Your task to perform on an android device: Open privacy settings Image 0: 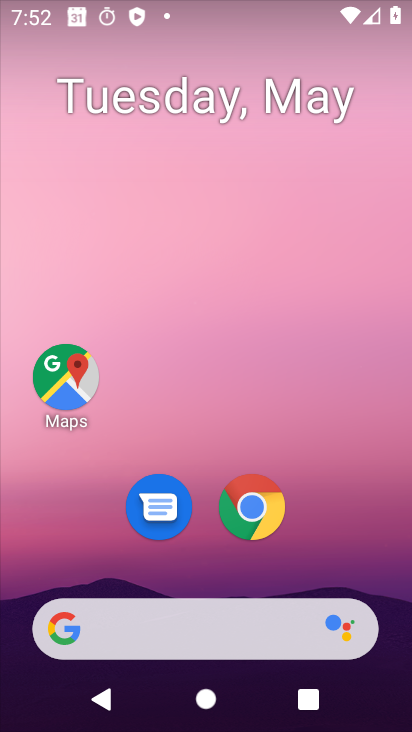
Step 0: drag from (303, 569) to (272, 23)
Your task to perform on an android device: Open privacy settings Image 1: 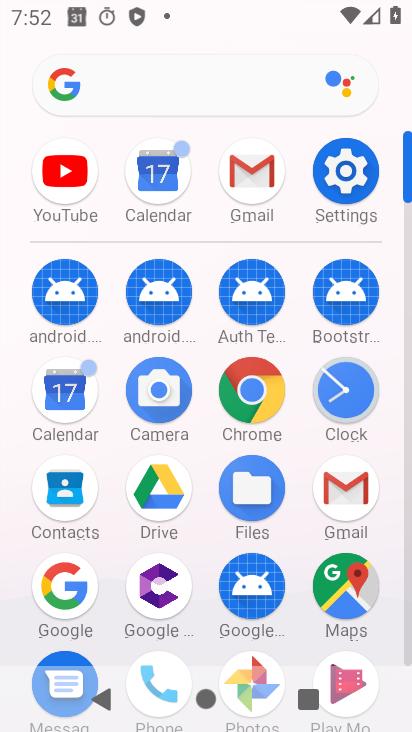
Step 1: click (347, 170)
Your task to perform on an android device: Open privacy settings Image 2: 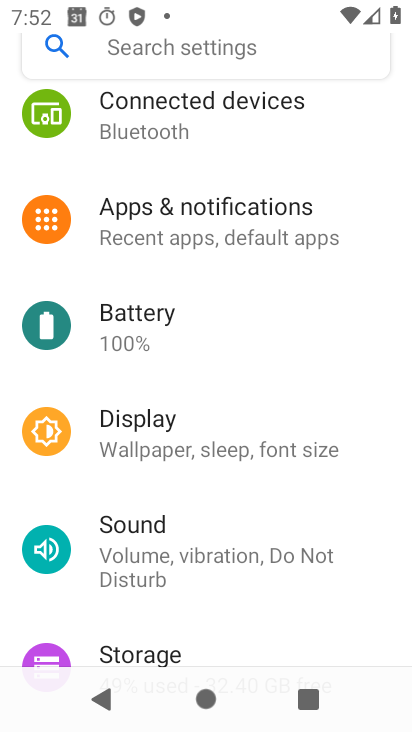
Step 2: drag from (231, 253) to (268, 409)
Your task to perform on an android device: Open privacy settings Image 3: 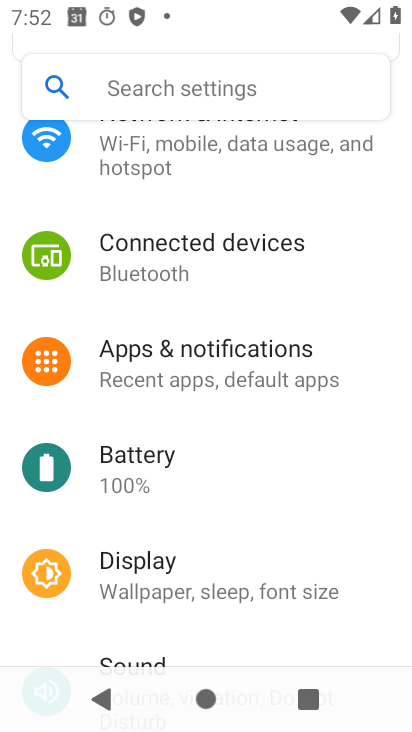
Step 3: drag from (249, 272) to (318, 451)
Your task to perform on an android device: Open privacy settings Image 4: 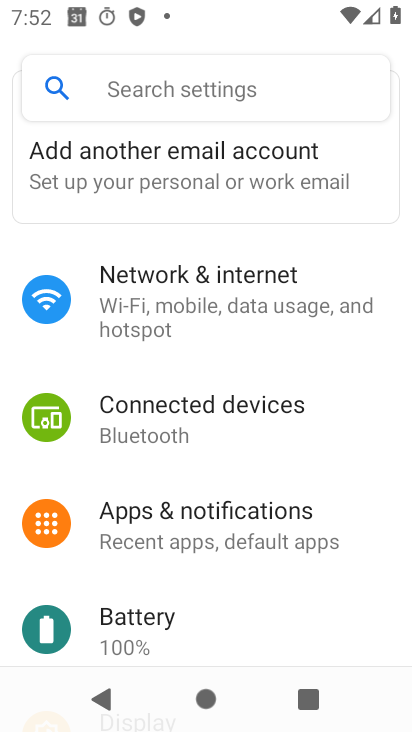
Step 4: drag from (301, 556) to (230, 149)
Your task to perform on an android device: Open privacy settings Image 5: 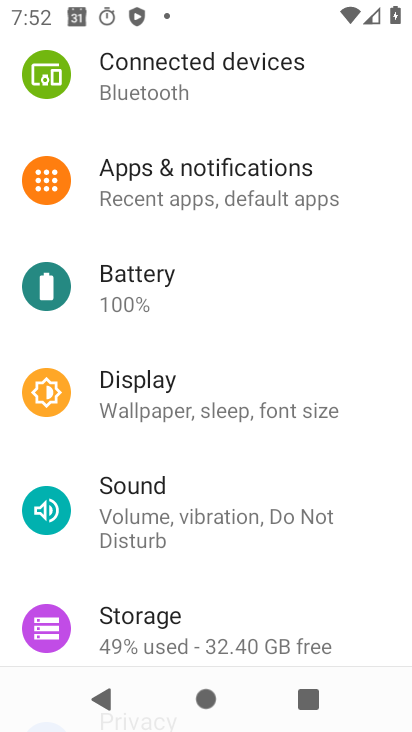
Step 5: drag from (287, 496) to (227, 251)
Your task to perform on an android device: Open privacy settings Image 6: 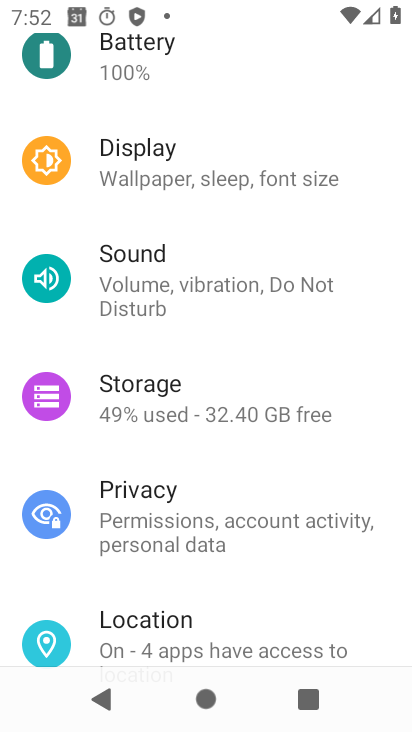
Step 6: drag from (167, 573) to (171, 429)
Your task to perform on an android device: Open privacy settings Image 7: 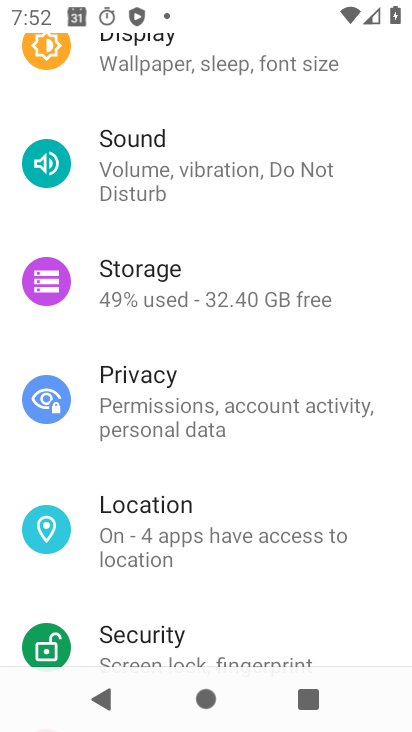
Step 7: click (229, 395)
Your task to perform on an android device: Open privacy settings Image 8: 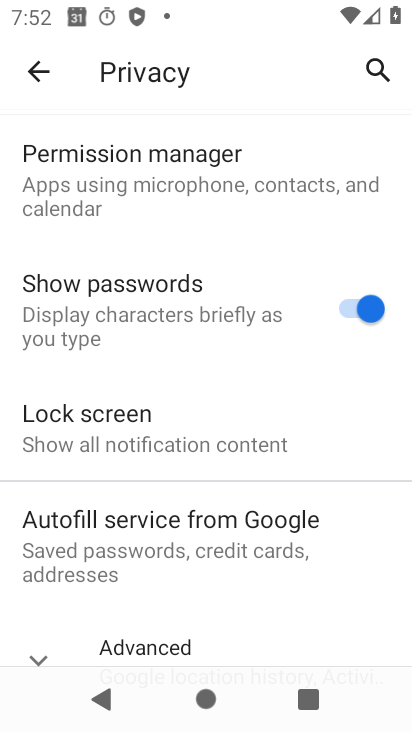
Step 8: task complete